Your task to perform on an android device: Go to Maps Image 0: 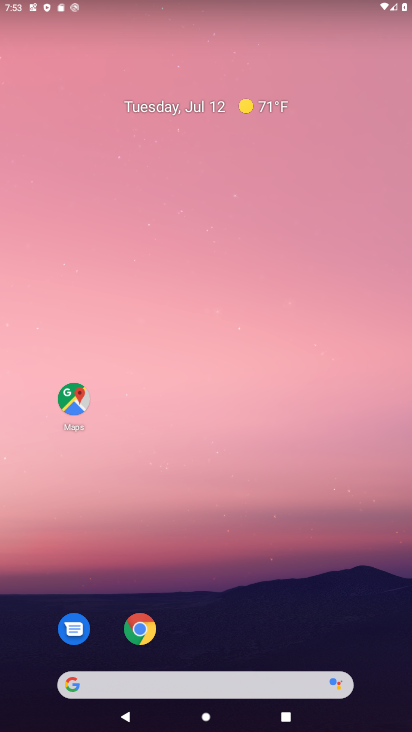
Step 0: click (75, 397)
Your task to perform on an android device: Go to Maps Image 1: 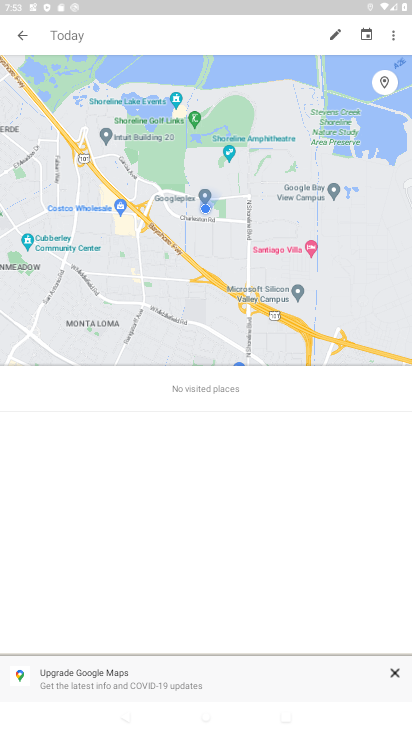
Step 1: click (18, 35)
Your task to perform on an android device: Go to Maps Image 2: 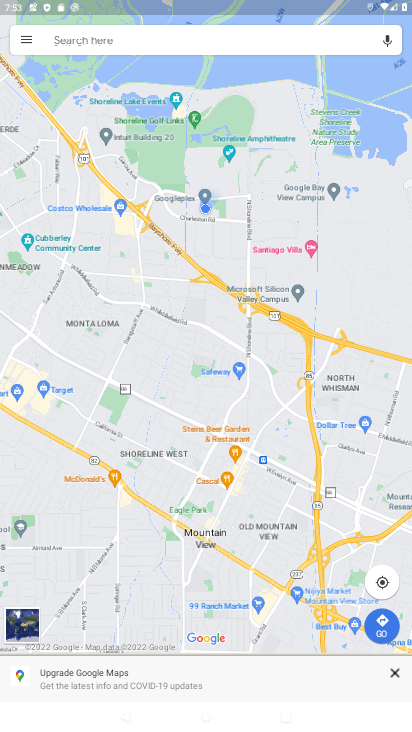
Step 2: task complete